Your task to perform on an android device: Search for "macbook pro" on walmart, select the first entry, and add it to the cart. Image 0: 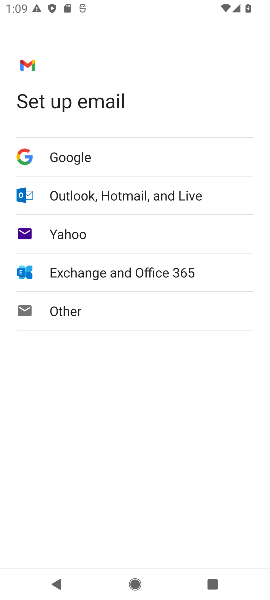
Step 0: press home button
Your task to perform on an android device: Search for "macbook pro" on walmart, select the first entry, and add it to the cart. Image 1: 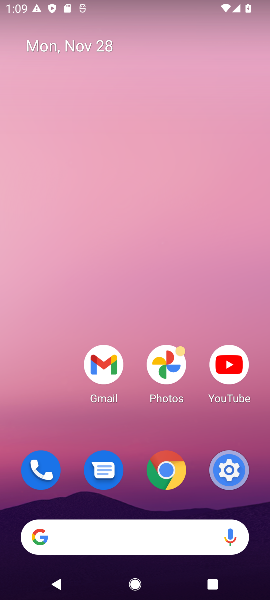
Step 1: click (91, 541)
Your task to perform on an android device: Search for "macbook pro" on walmart, select the first entry, and add it to the cart. Image 2: 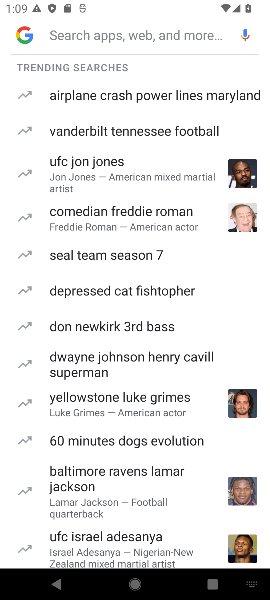
Step 2: type "walmart"
Your task to perform on an android device: Search for "macbook pro" on walmart, select the first entry, and add it to the cart. Image 3: 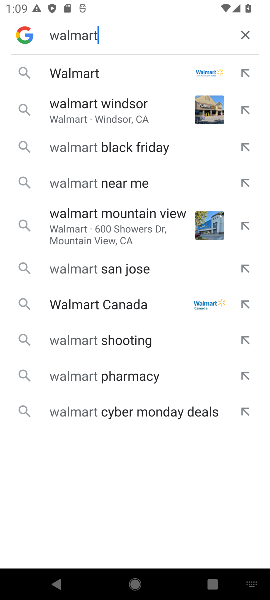
Step 3: click (84, 69)
Your task to perform on an android device: Search for "macbook pro" on walmart, select the first entry, and add it to the cart. Image 4: 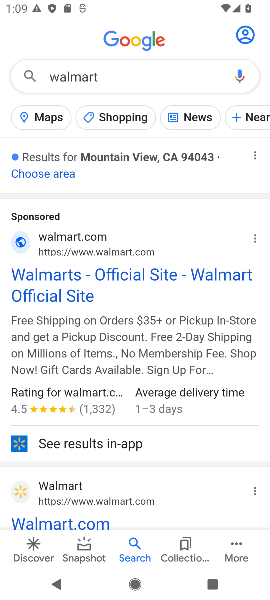
Step 4: click (61, 271)
Your task to perform on an android device: Search for "macbook pro" on walmart, select the first entry, and add it to the cart. Image 5: 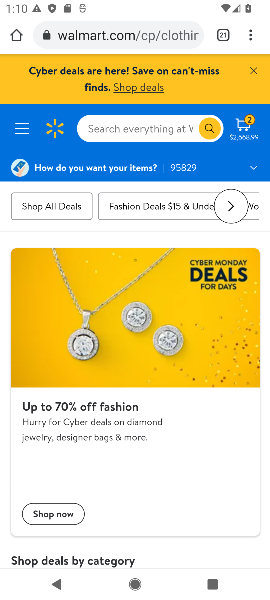
Step 5: click (134, 133)
Your task to perform on an android device: Search for "macbook pro" on walmart, select the first entry, and add it to the cart. Image 6: 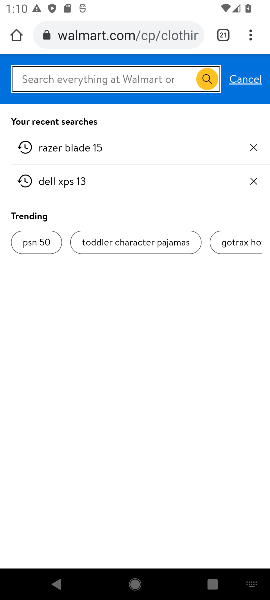
Step 6: type "macbook pro"
Your task to perform on an android device: Search for "macbook pro" on walmart, select the first entry, and add it to the cart. Image 7: 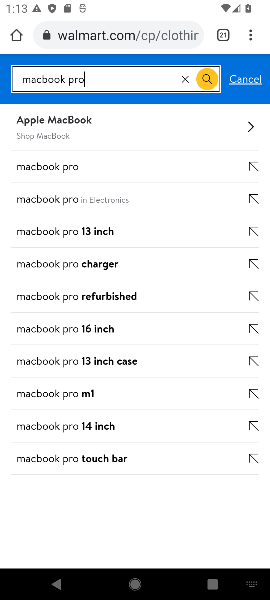
Step 7: task complete